Your task to perform on an android device: turn on translation in the chrome app Image 0: 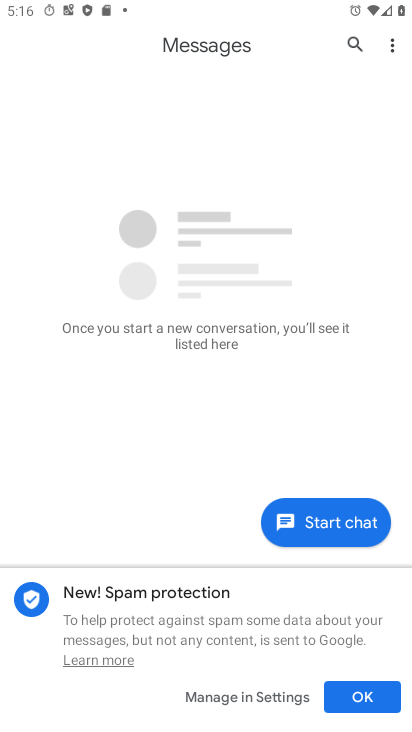
Step 0: press home button
Your task to perform on an android device: turn on translation in the chrome app Image 1: 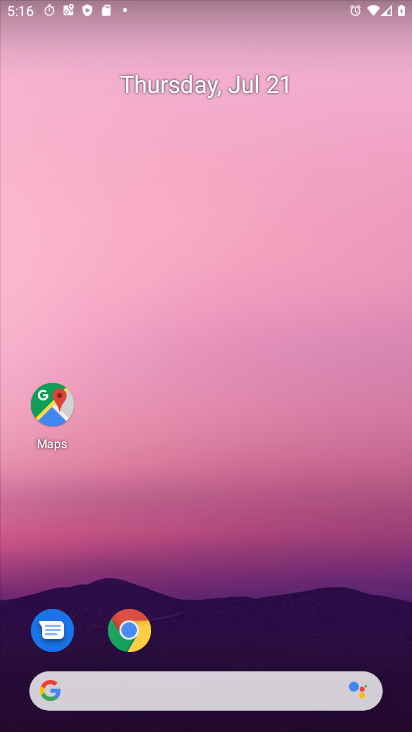
Step 1: click (129, 631)
Your task to perform on an android device: turn on translation in the chrome app Image 2: 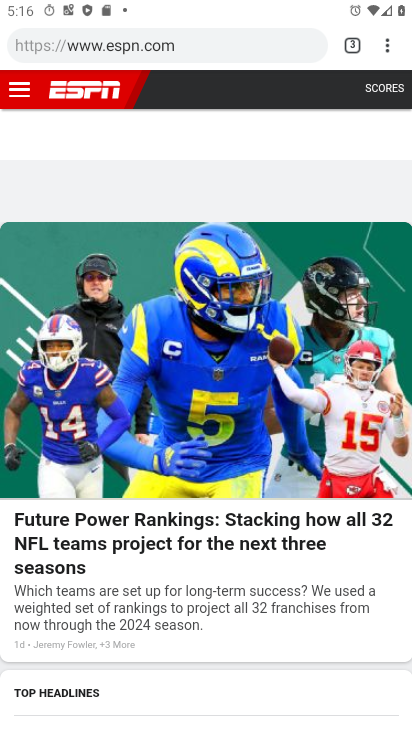
Step 2: click (388, 42)
Your task to perform on an android device: turn on translation in the chrome app Image 3: 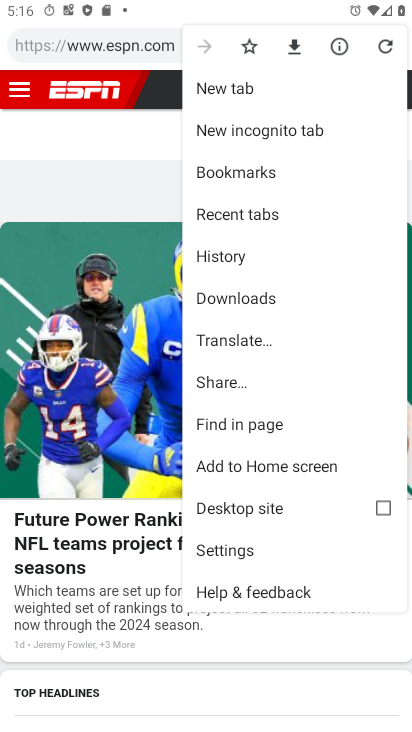
Step 3: click (231, 548)
Your task to perform on an android device: turn on translation in the chrome app Image 4: 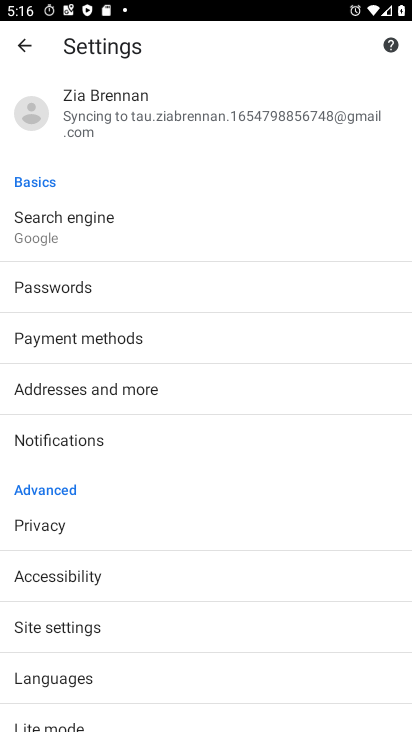
Step 4: click (78, 681)
Your task to perform on an android device: turn on translation in the chrome app Image 5: 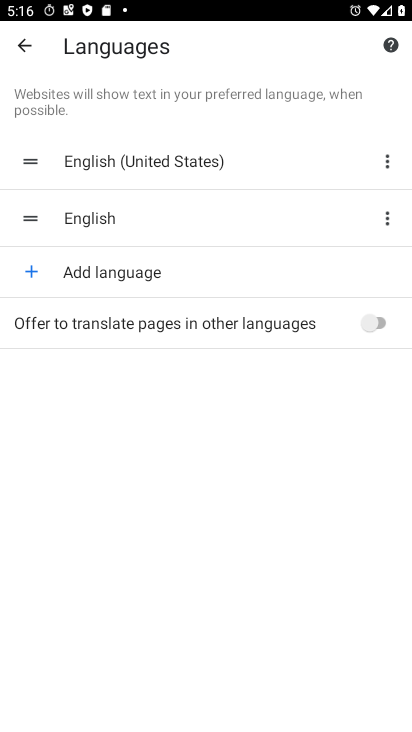
Step 5: click (378, 318)
Your task to perform on an android device: turn on translation in the chrome app Image 6: 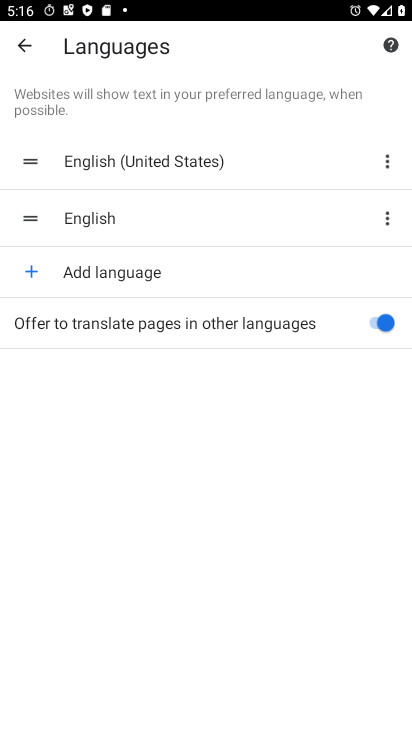
Step 6: task complete